Your task to perform on an android device: toggle priority inbox in the gmail app Image 0: 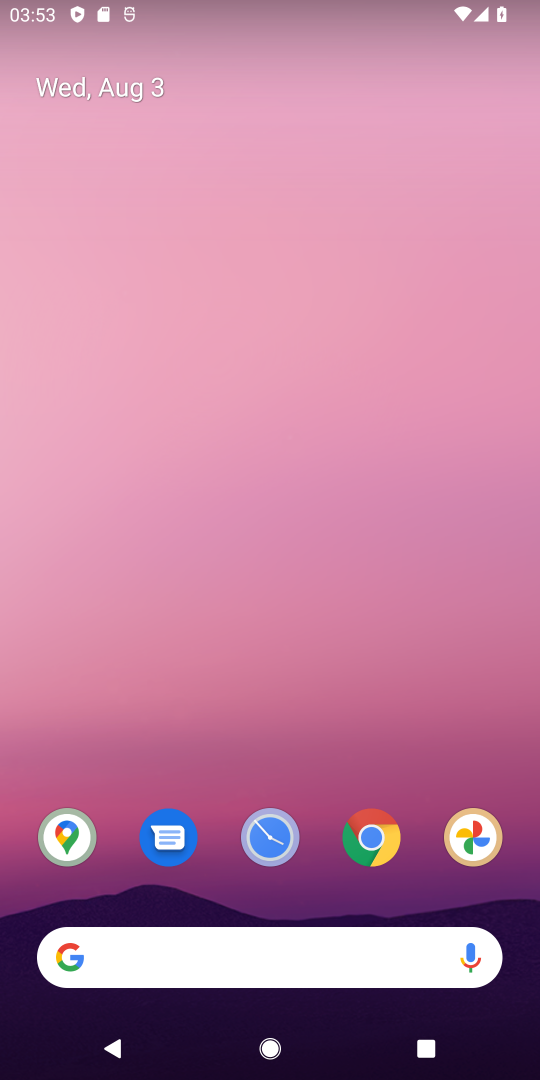
Step 0: drag from (411, 772) to (380, 126)
Your task to perform on an android device: toggle priority inbox in the gmail app Image 1: 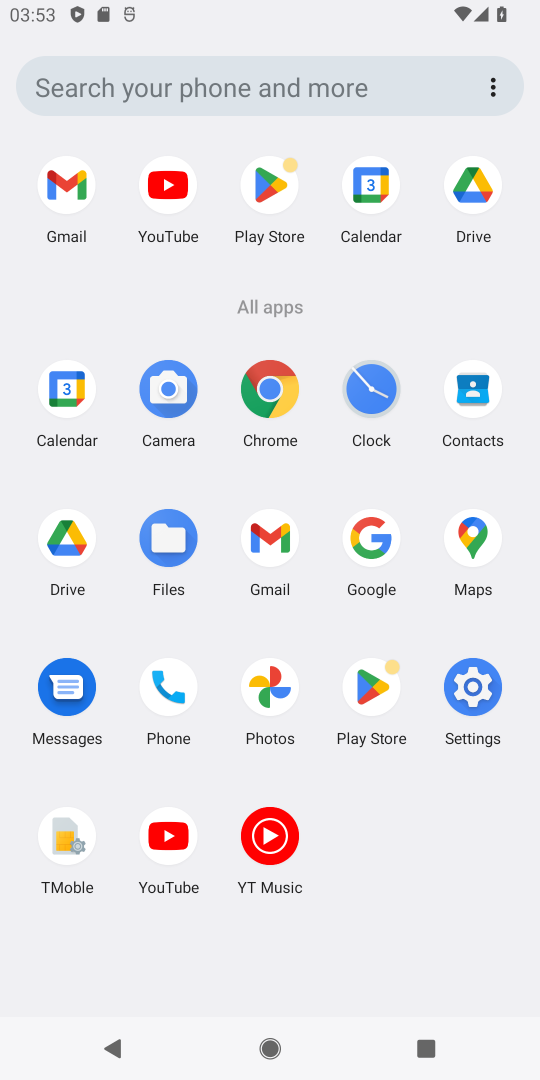
Step 1: click (269, 538)
Your task to perform on an android device: toggle priority inbox in the gmail app Image 2: 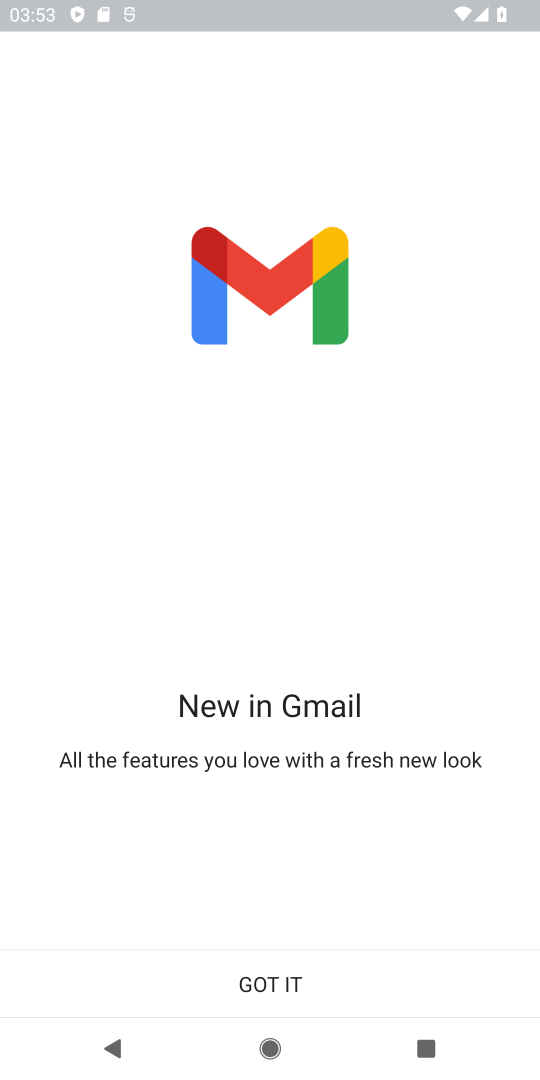
Step 2: click (257, 987)
Your task to perform on an android device: toggle priority inbox in the gmail app Image 3: 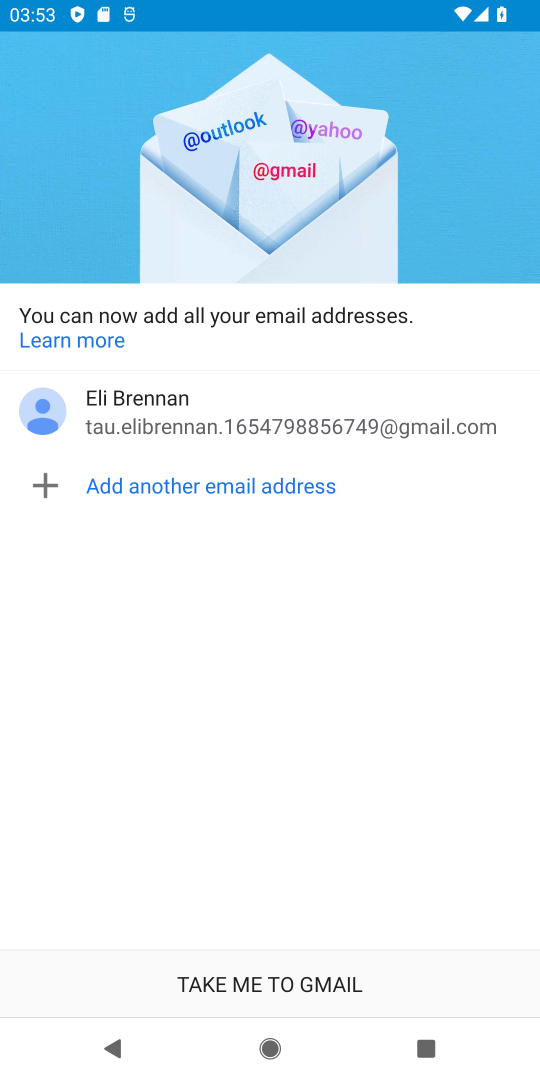
Step 3: click (283, 969)
Your task to perform on an android device: toggle priority inbox in the gmail app Image 4: 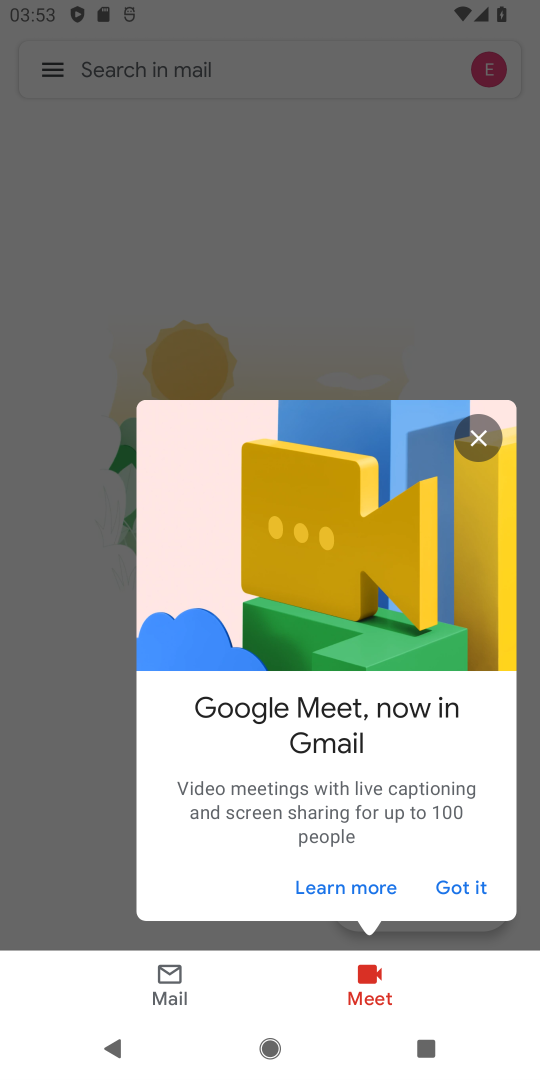
Step 4: click (459, 887)
Your task to perform on an android device: toggle priority inbox in the gmail app Image 5: 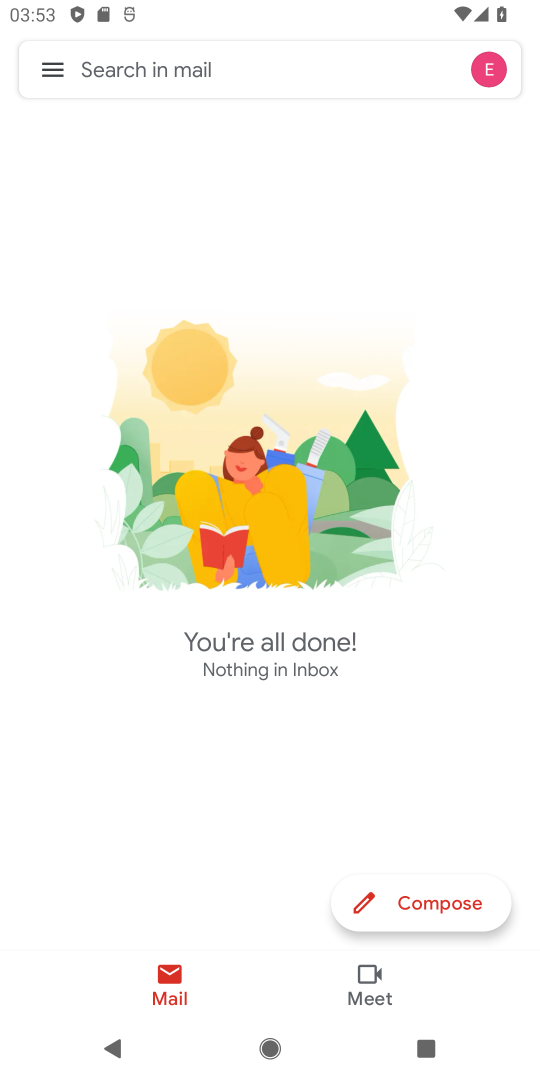
Step 5: click (50, 68)
Your task to perform on an android device: toggle priority inbox in the gmail app Image 6: 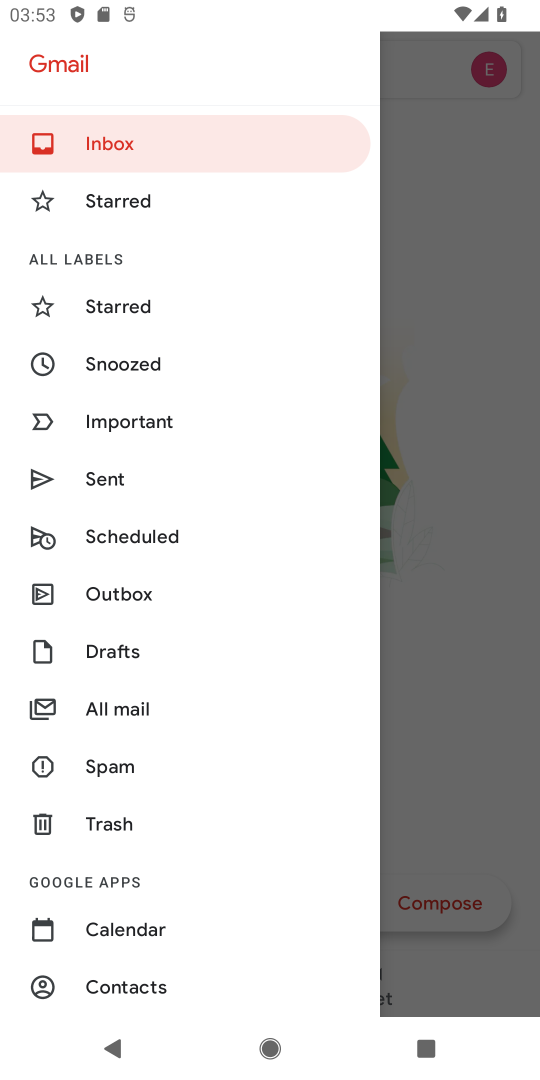
Step 6: drag from (198, 932) to (232, 527)
Your task to perform on an android device: toggle priority inbox in the gmail app Image 7: 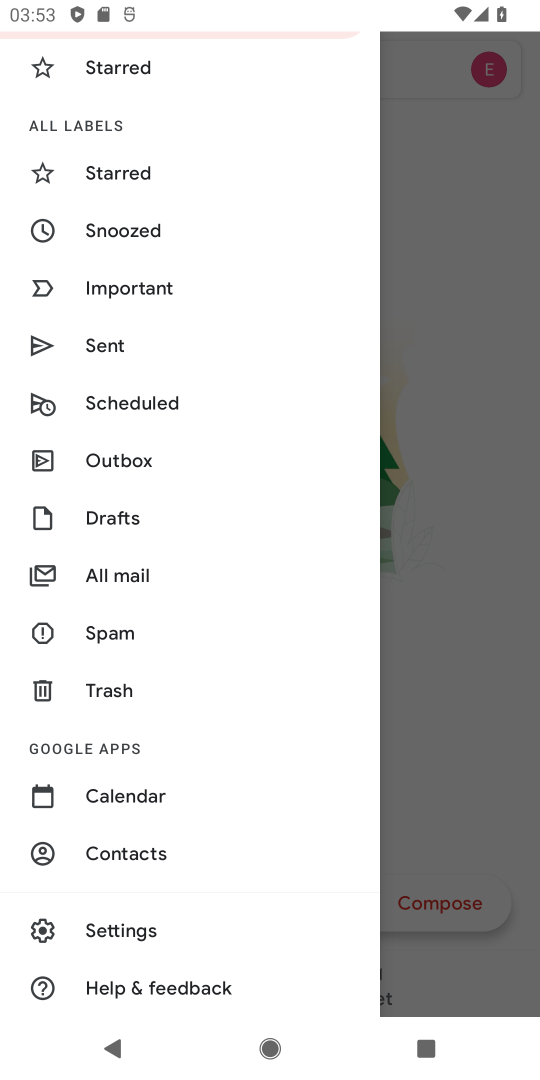
Step 7: click (120, 924)
Your task to perform on an android device: toggle priority inbox in the gmail app Image 8: 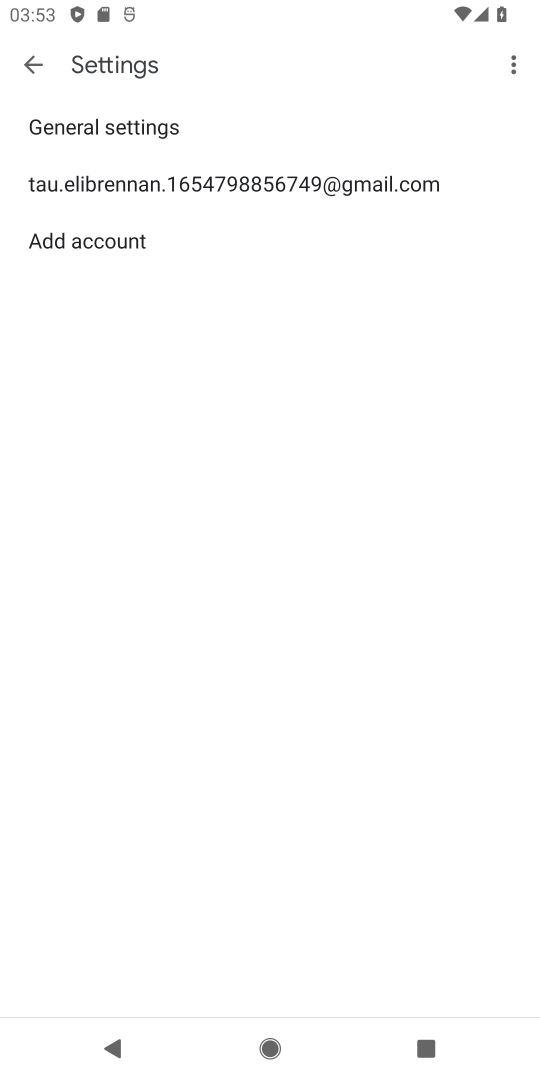
Step 8: click (168, 184)
Your task to perform on an android device: toggle priority inbox in the gmail app Image 9: 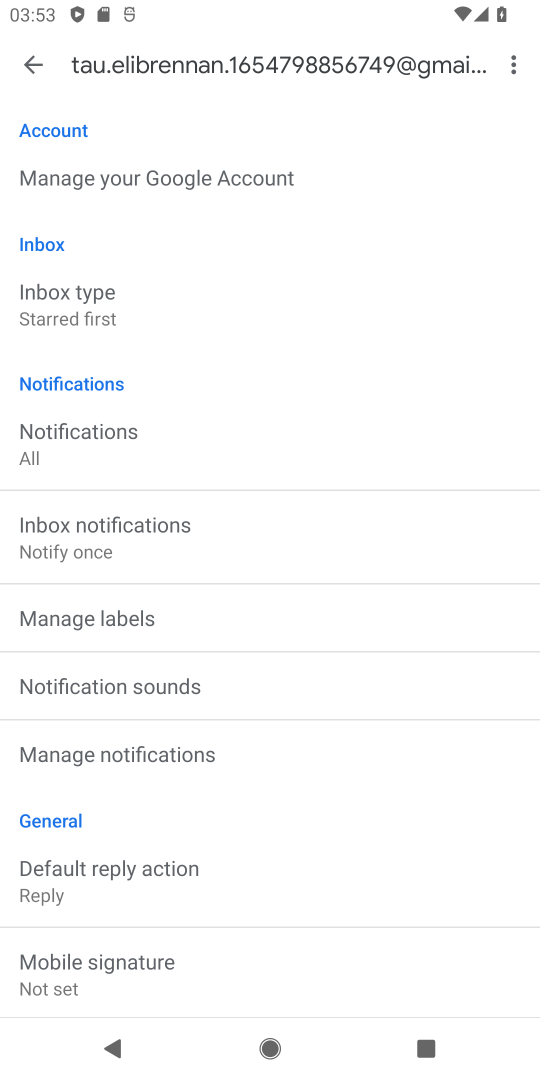
Step 9: click (71, 306)
Your task to perform on an android device: toggle priority inbox in the gmail app Image 10: 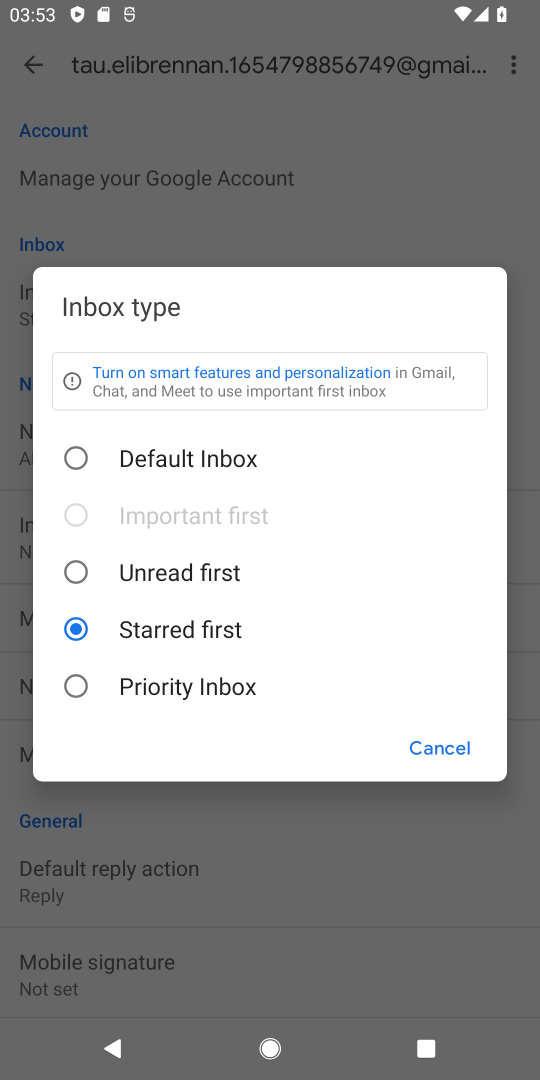
Step 10: click (76, 685)
Your task to perform on an android device: toggle priority inbox in the gmail app Image 11: 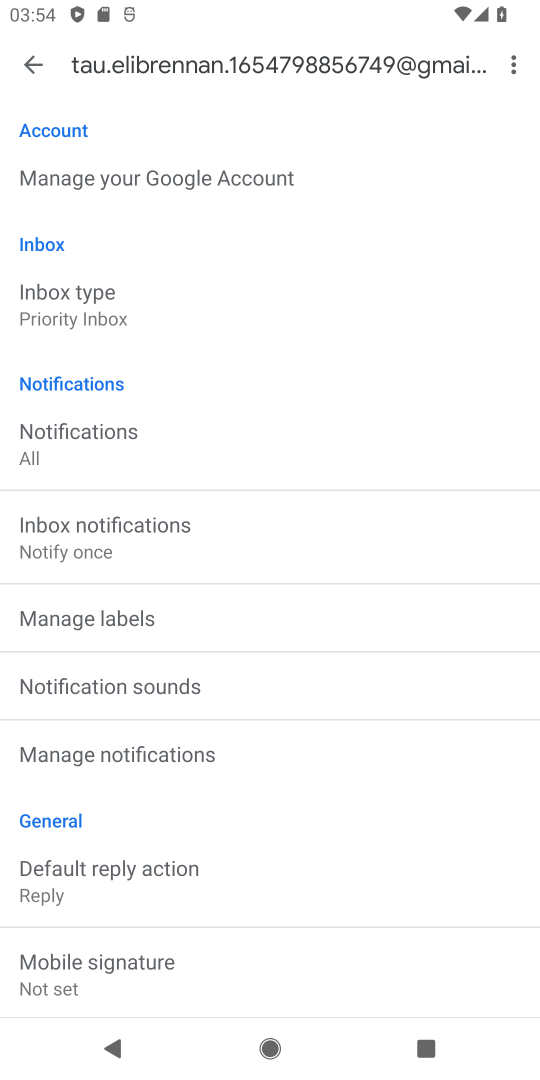
Step 11: task complete